Your task to perform on an android device: search for starred emails in the gmail app Image 0: 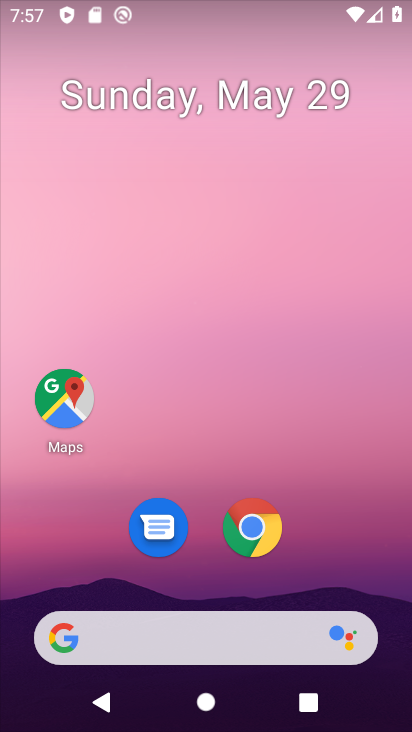
Step 0: drag from (202, 557) to (266, 103)
Your task to perform on an android device: search for starred emails in the gmail app Image 1: 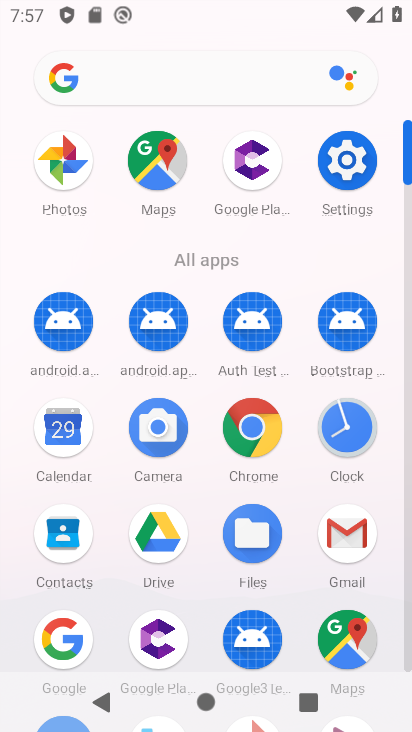
Step 1: click (344, 538)
Your task to perform on an android device: search for starred emails in the gmail app Image 2: 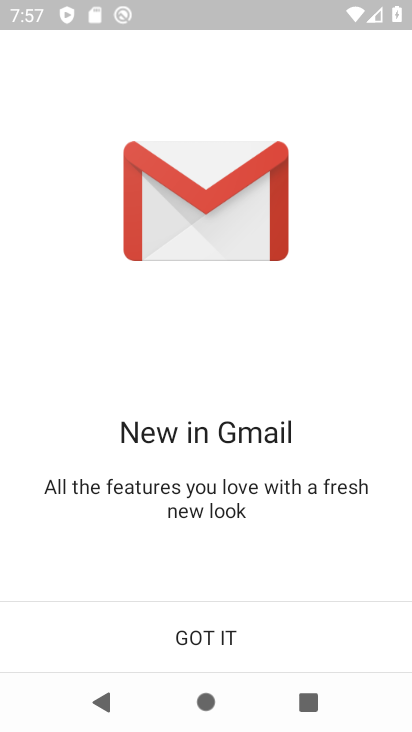
Step 2: click (210, 653)
Your task to perform on an android device: search for starred emails in the gmail app Image 3: 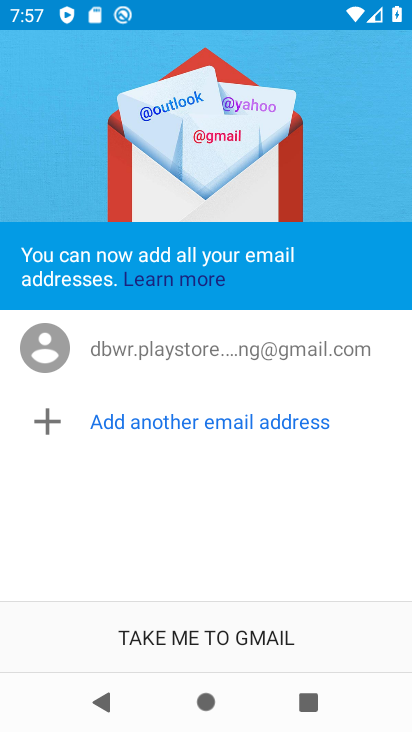
Step 3: click (221, 640)
Your task to perform on an android device: search for starred emails in the gmail app Image 4: 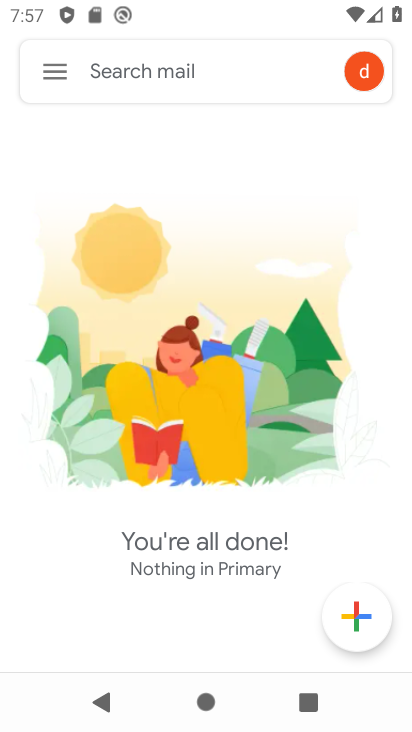
Step 4: click (51, 67)
Your task to perform on an android device: search for starred emails in the gmail app Image 5: 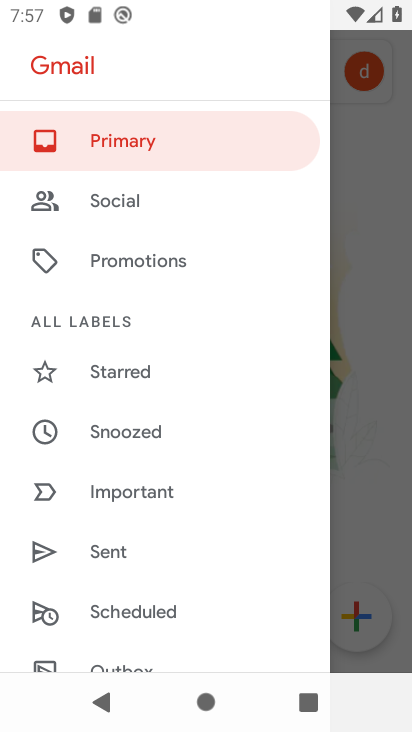
Step 5: click (133, 375)
Your task to perform on an android device: search for starred emails in the gmail app Image 6: 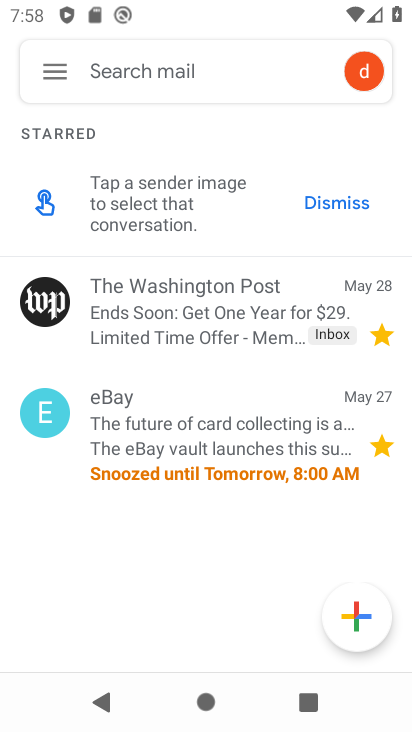
Step 6: task complete